Your task to perform on an android device: add a label to a message in the gmail app Image 0: 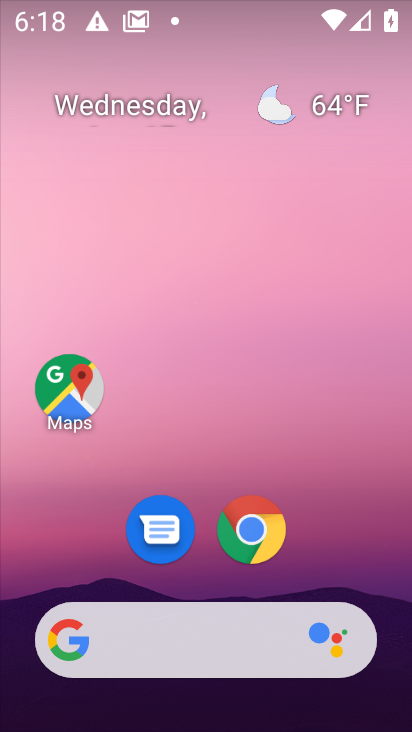
Step 0: drag from (203, 574) to (222, 2)
Your task to perform on an android device: add a label to a message in the gmail app Image 1: 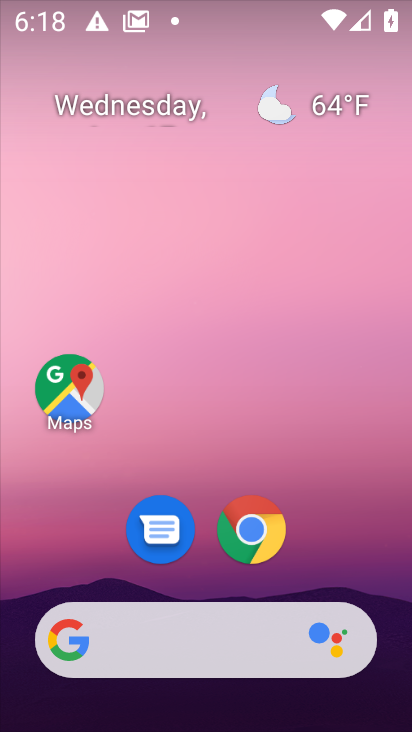
Step 1: drag from (195, 584) to (199, 109)
Your task to perform on an android device: add a label to a message in the gmail app Image 2: 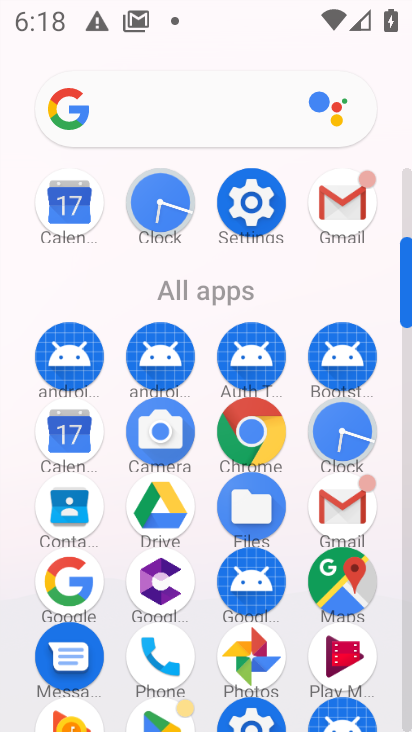
Step 2: click (341, 200)
Your task to perform on an android device: add a label to a message in the gmail app Image 3: 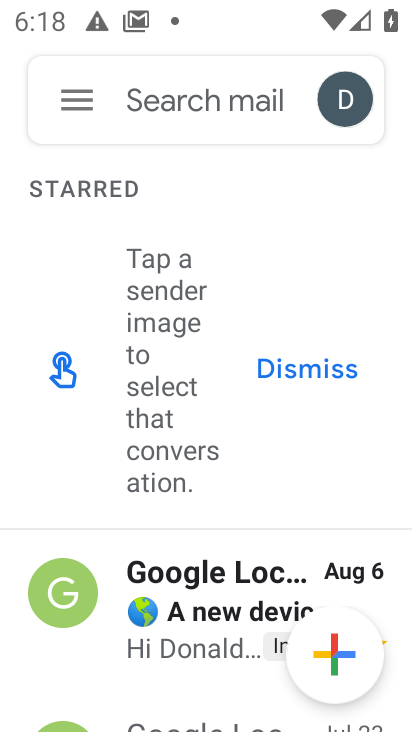
Step 3: drag from (161, 610) to (202, 278)
Your task to perform on an android device: add a label to a message in the gmail app Image 4: 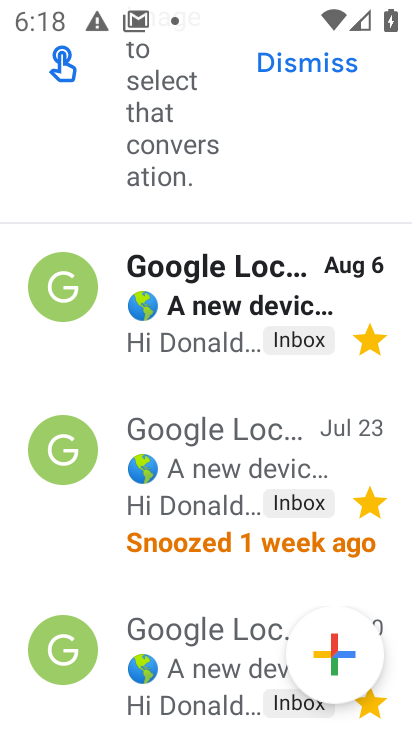
Step 4: drag from (223, 383) to (229, 239)
Your task to perform on an android device: add a label to a message in the gmail app Image 5: 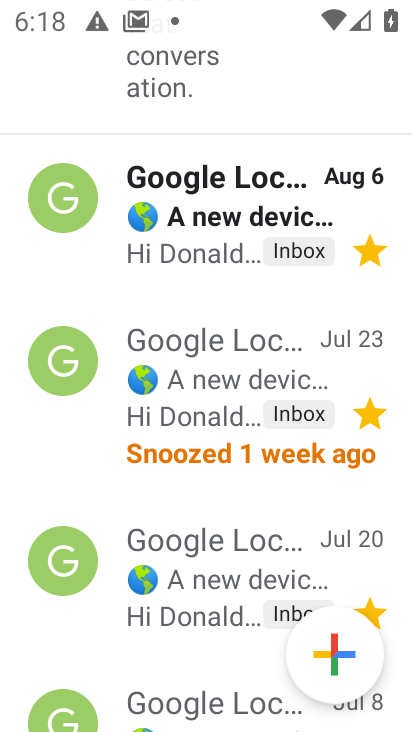
Step 5: drag from (204, 593) to (224, 292)
Your task to perform on an android device: add a label to a message in the gmail app Image 6: 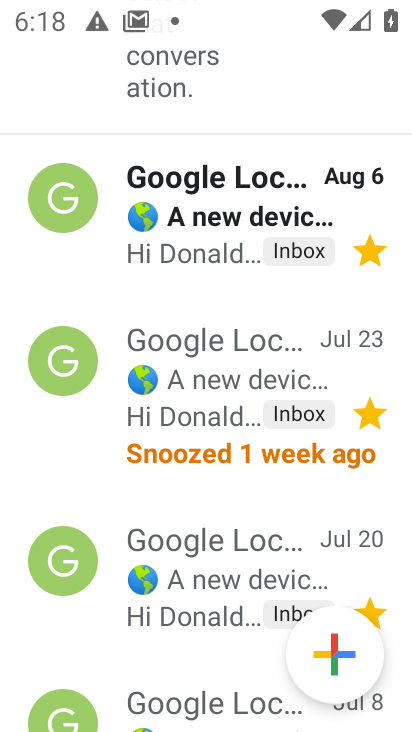
Step 6: drag from (156, 630) to (221, 102)
Your task to perform on an android device: add a label to a message in the gmail app Image 7: 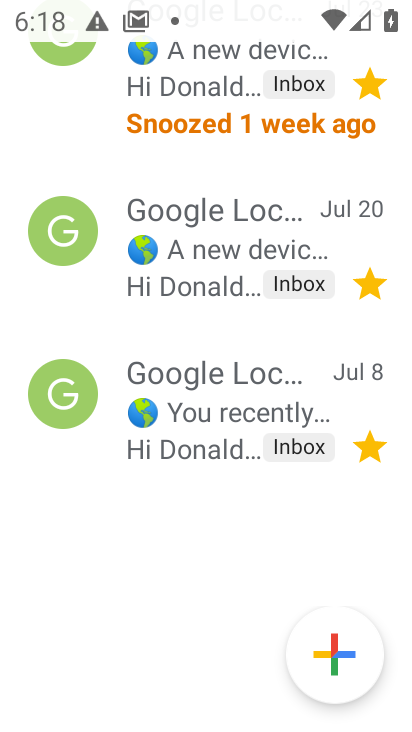
Step 7: drag from (211, 569) to (219, 352)
Your task to perform on an android device: add a label to a message in the gmail app Image 8: 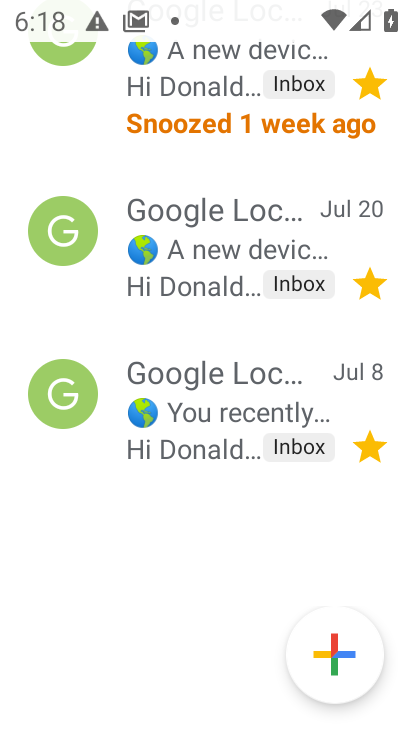
Step 8: click (288, 435)
Your task to perform on an android device: add a label to a message in the gmail app Image 9: 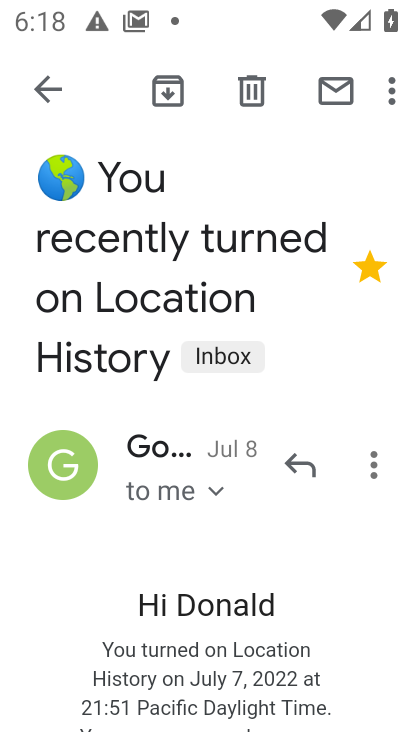
Step 9: click (215, 359)
Your task to perform on an android device: add a label to a message in the gmail app Image 10: 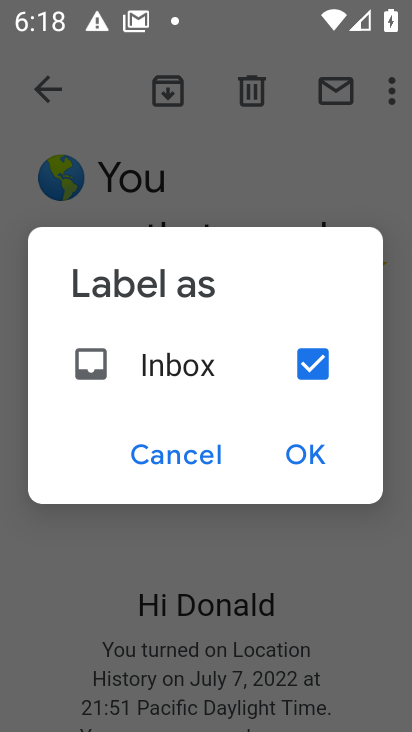
Step 10: click (315, 462)
Your task to perform on an android device: add a label to a message in the gmail app Image 11: 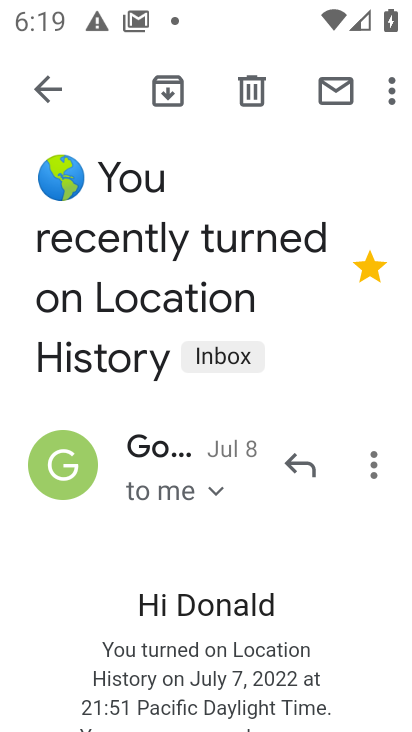
Step 11: task complete